Your task to perform on an android device: create a new album in the google photos Image 0: 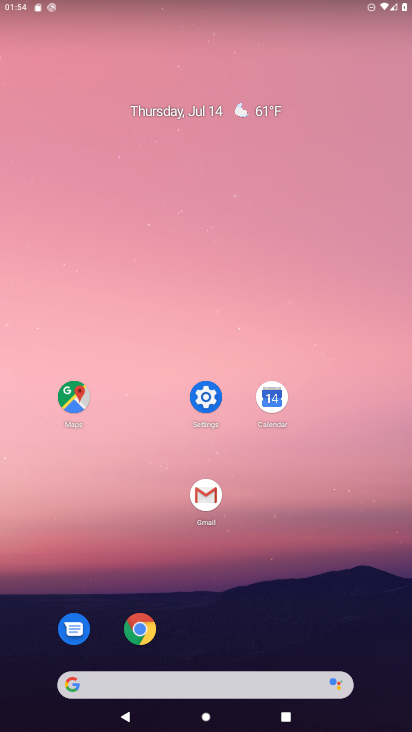
Step 0: drag from (384, 649) to (342, 131)
Your task to perform on an android device: create a new album in the google photos Image 1: 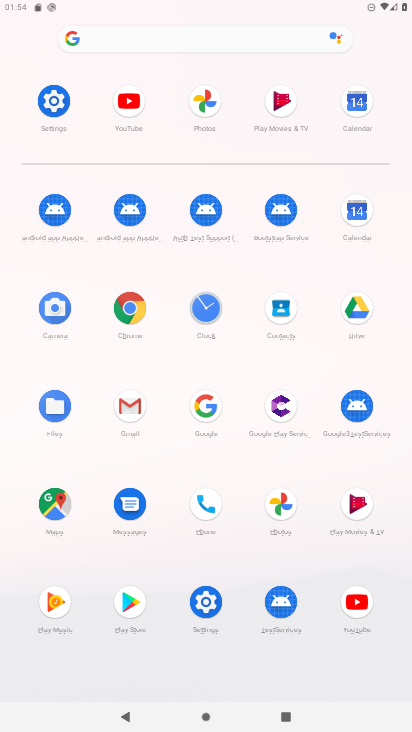
Step 1: click (281, 510)
Your task to perform on an android device: create a new album in the google photos Image 2: 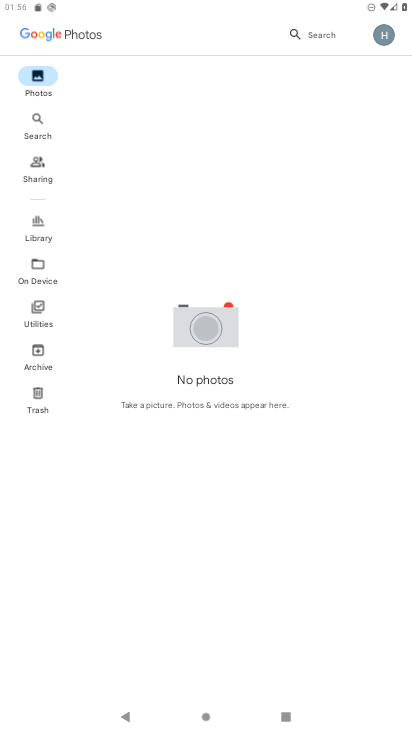
Step 2: task complete